Your task to perform on an android device: open app "Upside-Cash back on gas & food" Image 0: 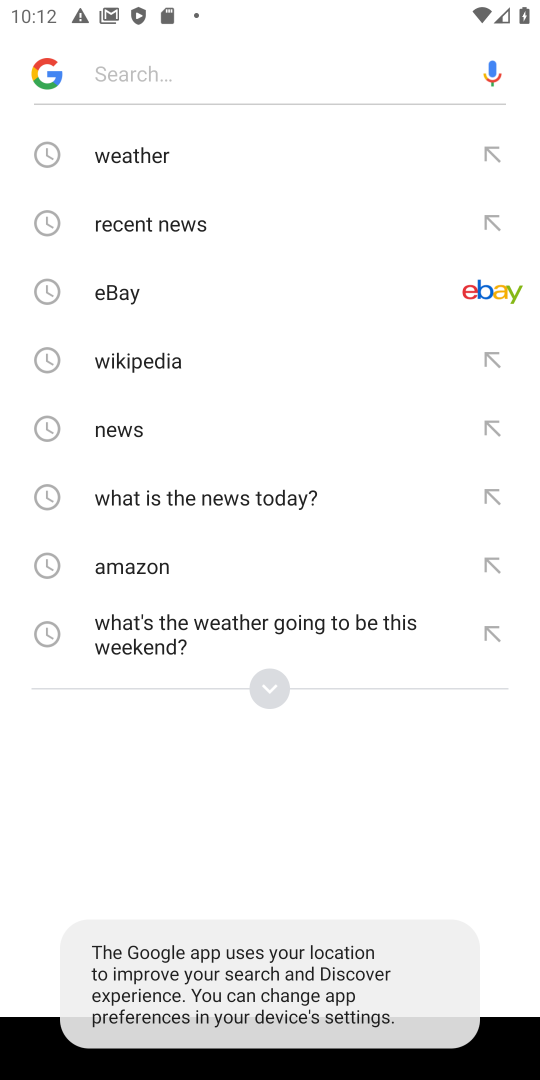
Step 0: press home button
Your task to perform on an android device: open app "Upside-Cash back on gas & food" Image 1: 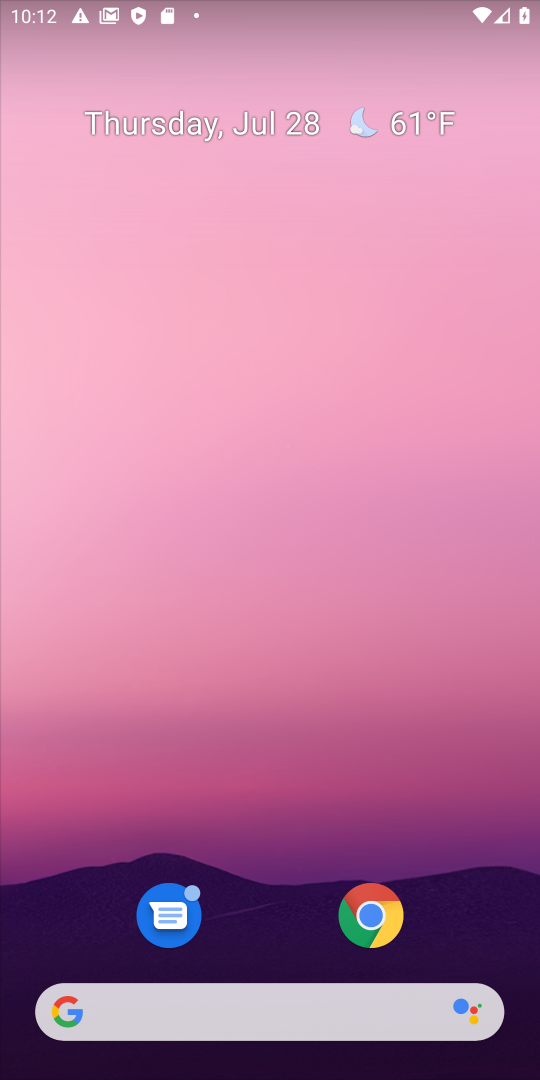
Step 1: drag from (466, 796) to (372, 26)
Your task to perform on an android device: open app "Upside-Cash back on gas & food" Image 2: 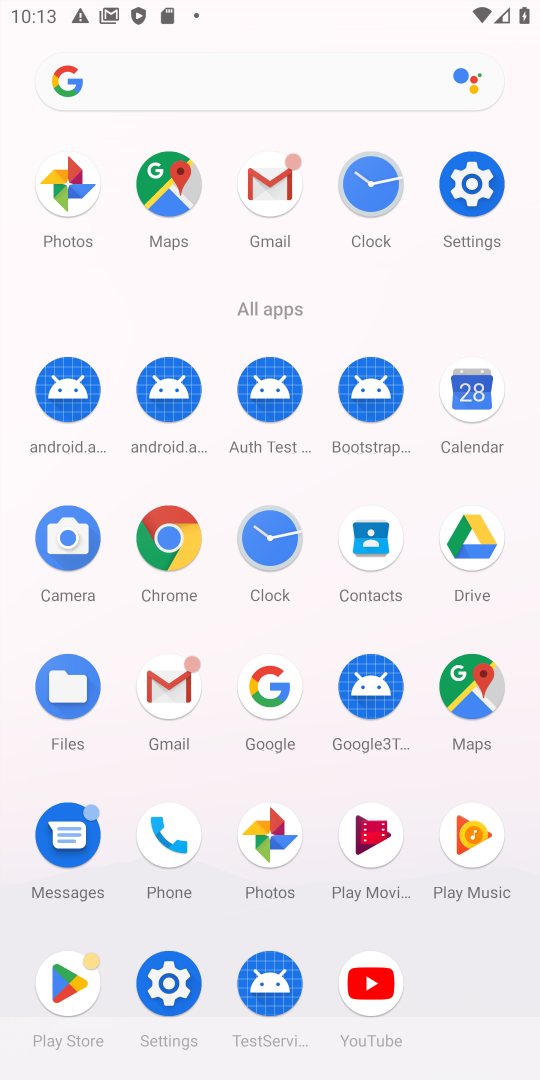
Step 2: click (66, 965)
Your task to perform on an android device: open app "Upside-Cash back on gas & food" Image 3: 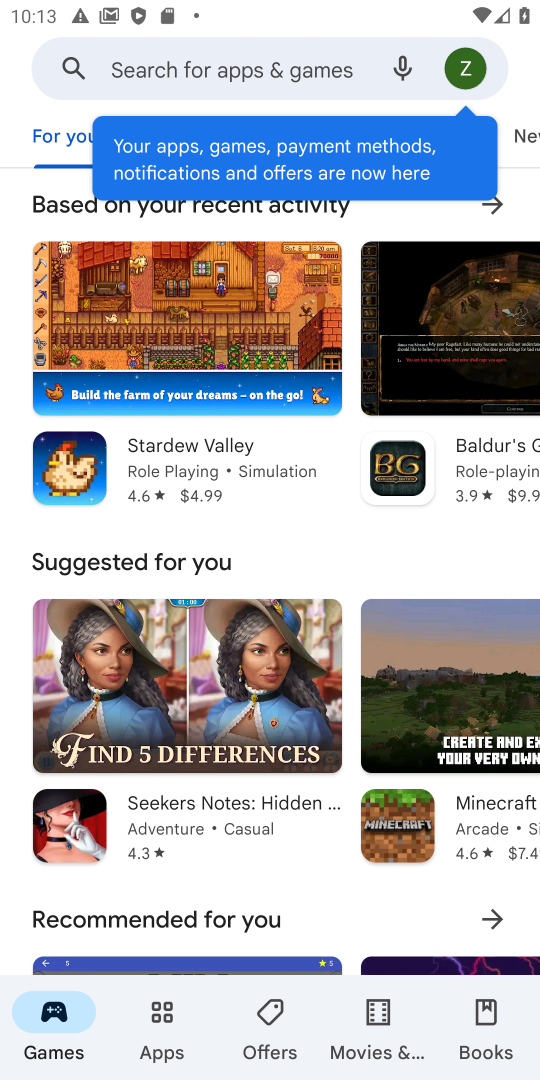
Step 3: click (160, 49)
Your task to perform on an android device: open app "Upside-Cash back on gas & food" Image 4: 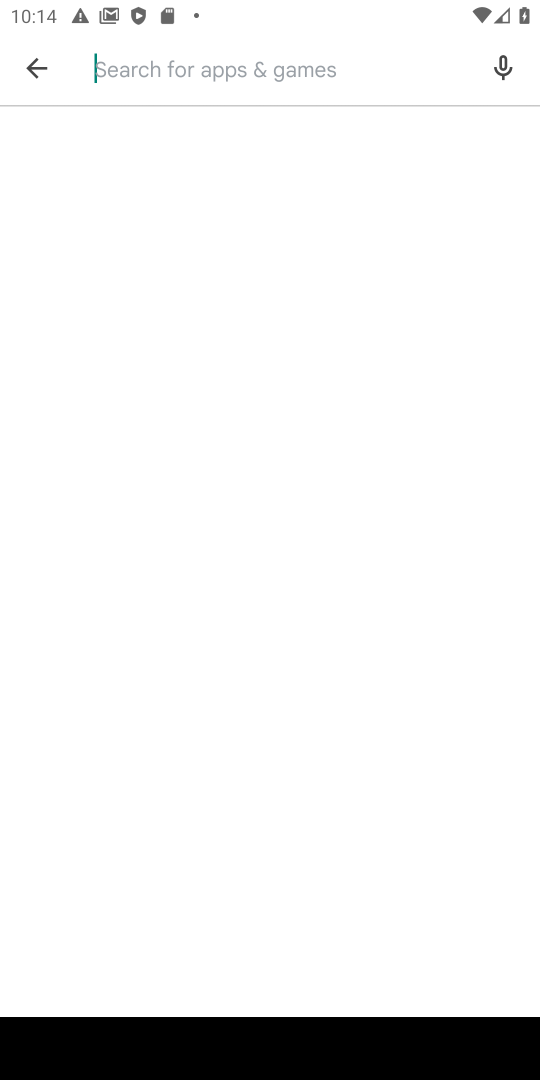
Step 4: type "Upside-Cash back on gas & food"
Your task to perform on an android device: open app "Upside-Cash back on gas & food" Image 5: 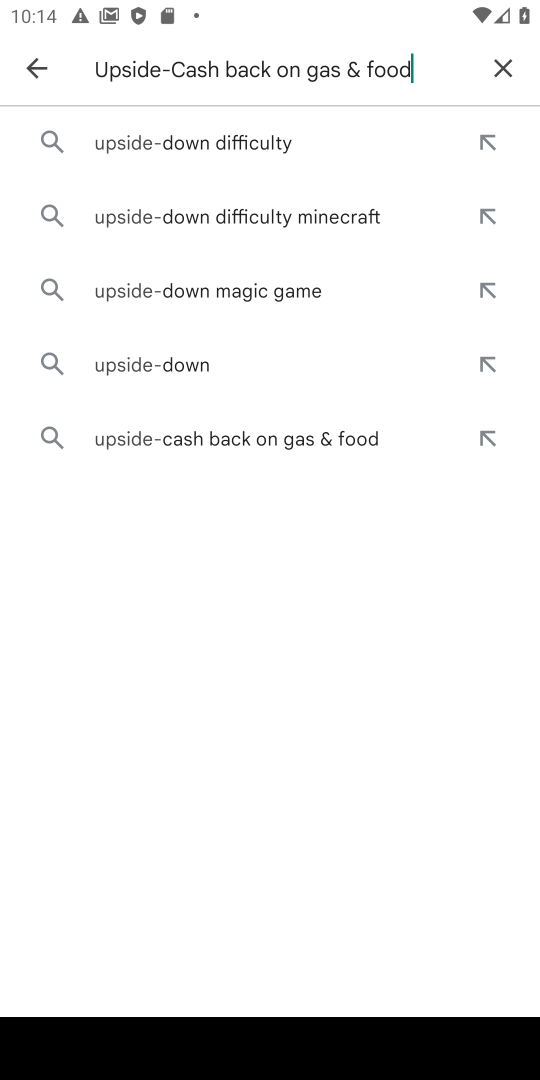
Step 5: type ""
Your task to perform on an android device: open app "Upside-Cash back on gas & food" Image 6: 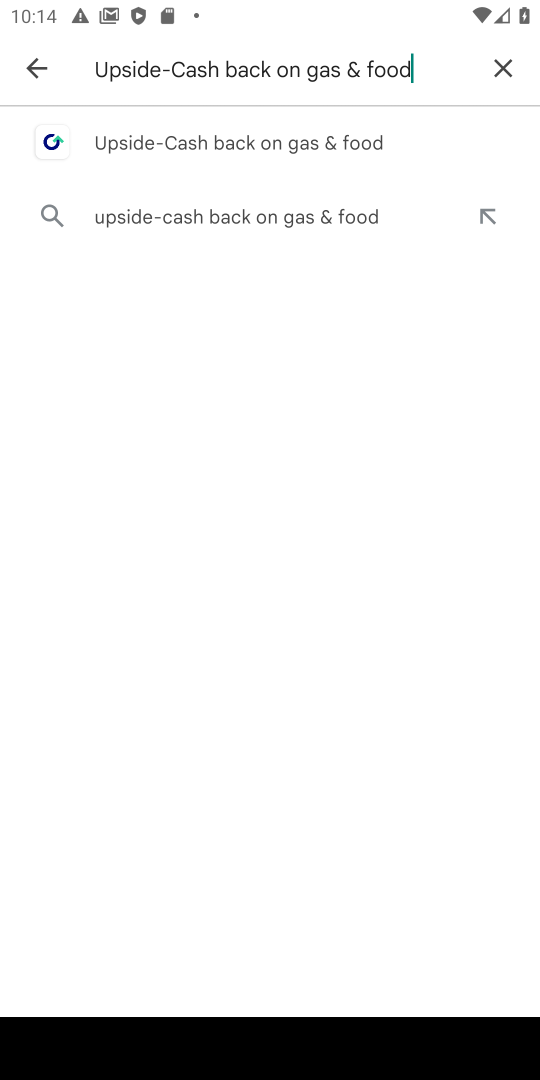
Step 6: click (222, 132)
Your task to perform on an android device: open app "Upside-Cash back on gas & food" Image 7: 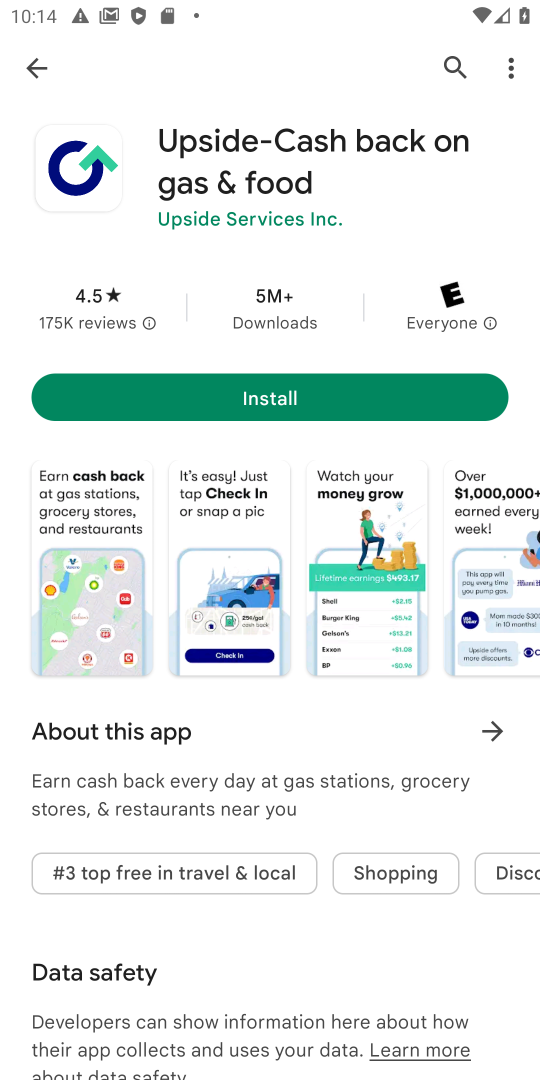
Step 7: task complete